Your task to perform on an android device: Go to battery settings Image 0: 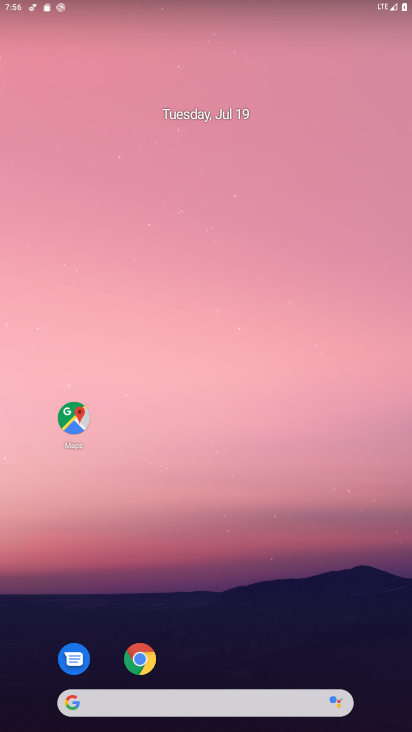
Step 0: drag from (245, 649) to (221, 40)
Your task to perform on an android device: Go to battery settings Image 1: 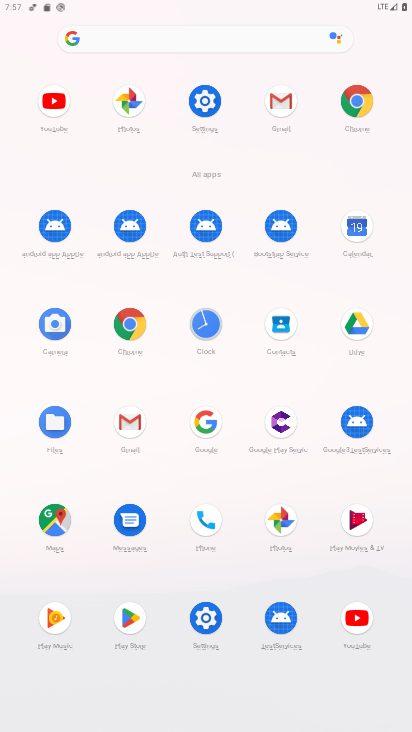
Step 1: click (197, 630)
Your task to perform on an android device: Go to battery settings Image 2: 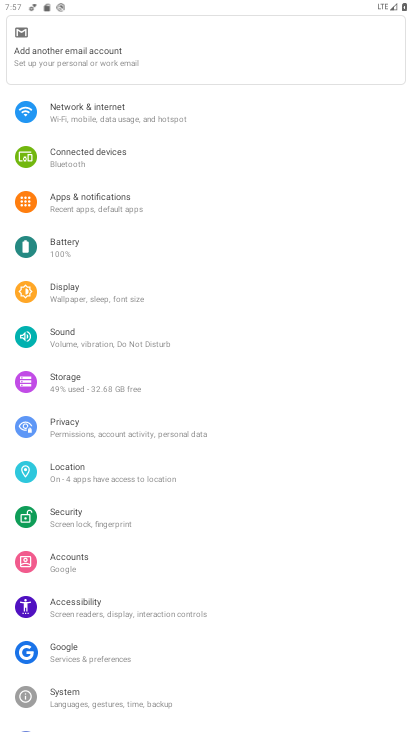
Step 2: click (72, 252)
Your task to perform on an android device: Go to battery settings Image 3: 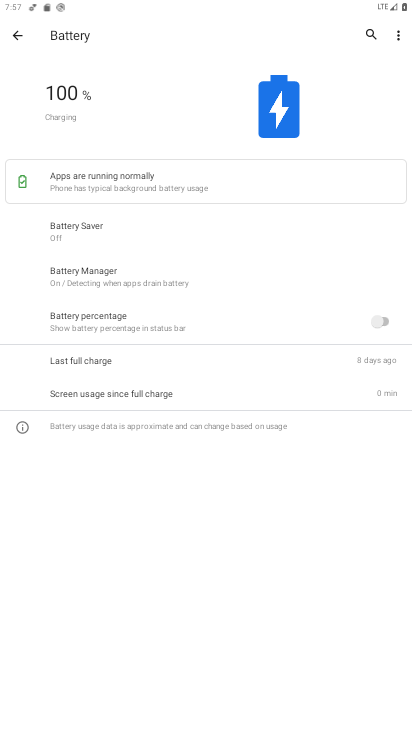
Step 3: task complete